Your task to perform on an android device: turn off picture-in-picture Image 0: 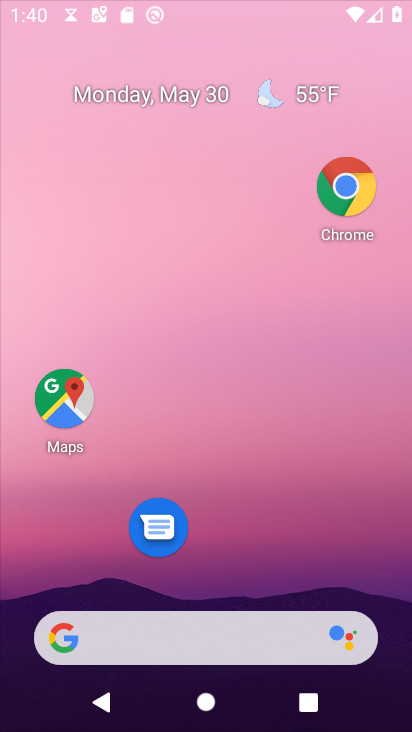
Step 0: drag from (199, 573) to (218, 75)
Your task to perform on an android device: turn off picture-in-picture Image 1: 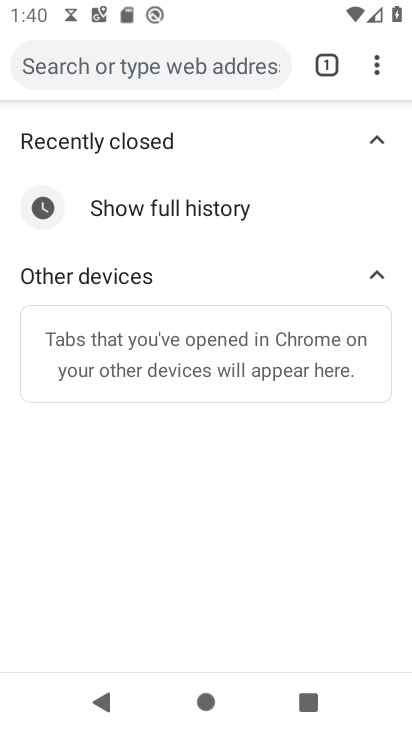
Step 1: press home button
Your task to perform on an android device: turn off picture-in-picture Image 2: 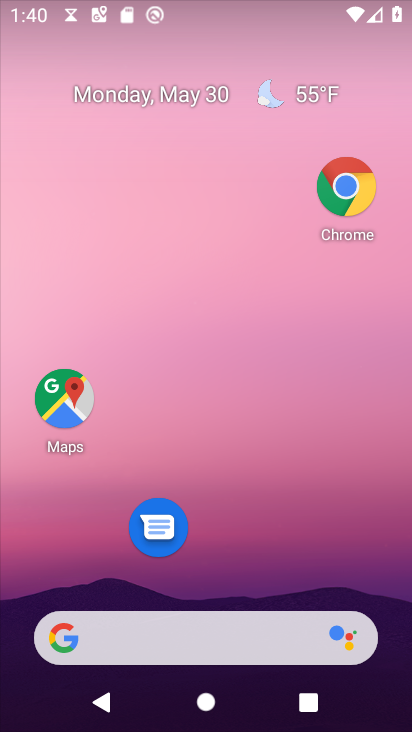
Step 2: drag from (235, 574) to (280, 23)
Your task to perform on an android device: turn off picture-in-picture Image 3: 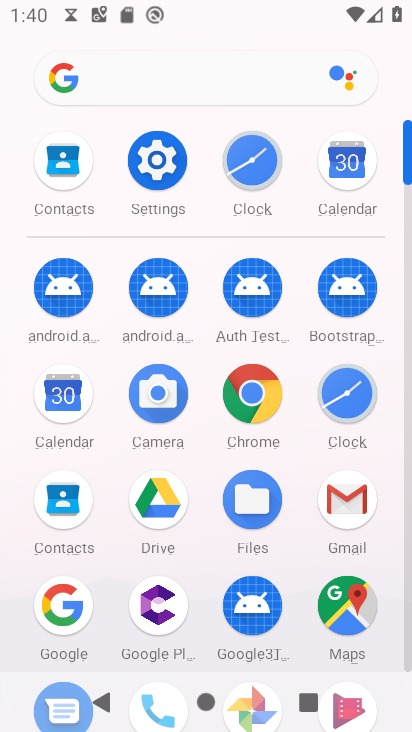
Step 3: click (138, 125)
Your task to perform on an android device: turn off picture-in-picture Image 4: 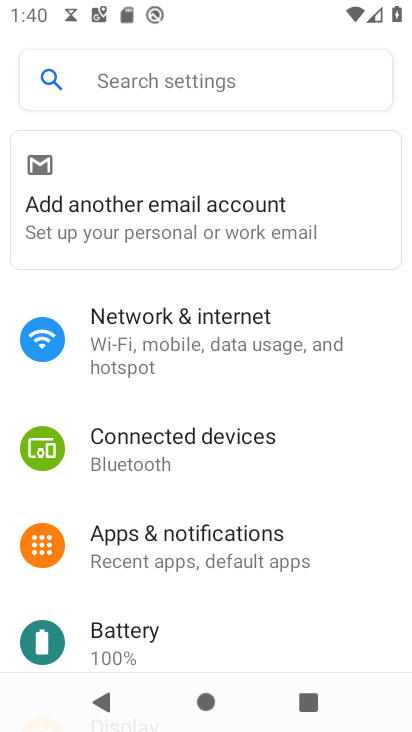
Step 4: click (172, 539)
Your task to perform on an android device: turn off picture-in-picture Image 5: 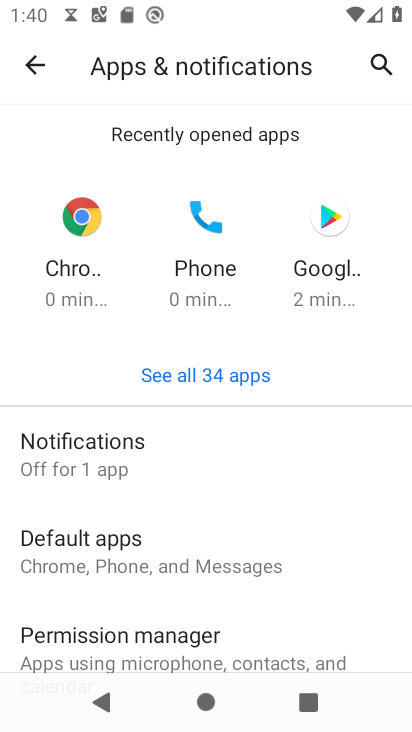
Step 5: click (166, 458)
Your task to perform on an android device: turn off picture-in-picture Image 6: 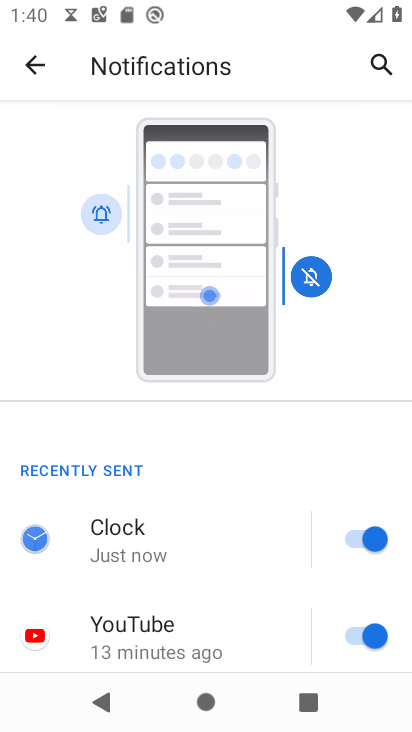
Step 6: drag from (199, 571) to (233, 292)
Your task to perform on an android device: turn off picture-in-picture Image 7: 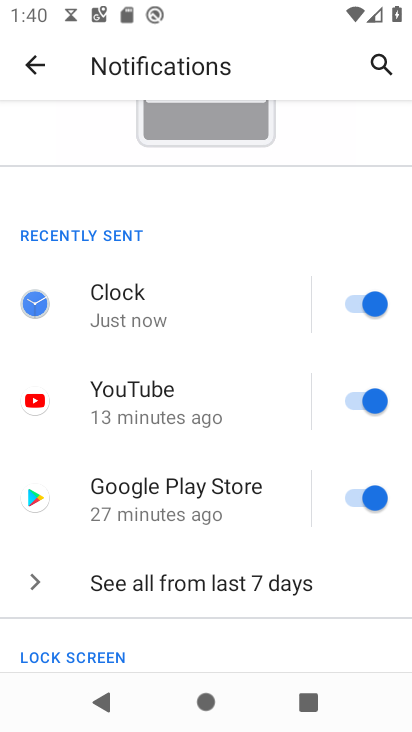
Step 7: drag from (210, 619) to (234, 369)
Your task to perform on an android device: turn off picture-in-picture Image 8: 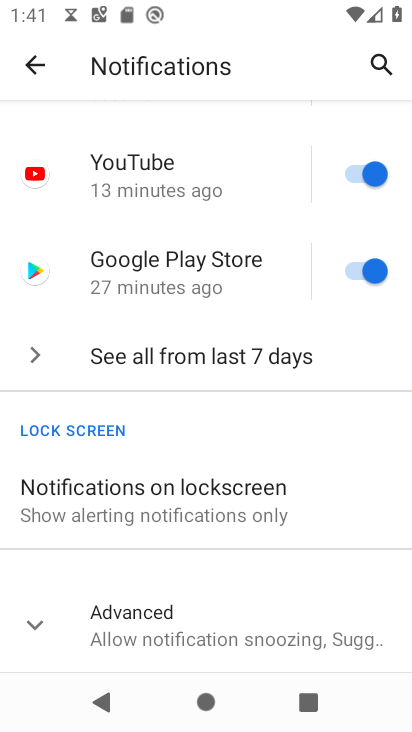
Step 8: click (45, 58)
Your task to perform on an android device: turn off picture-in-picture Image 9: 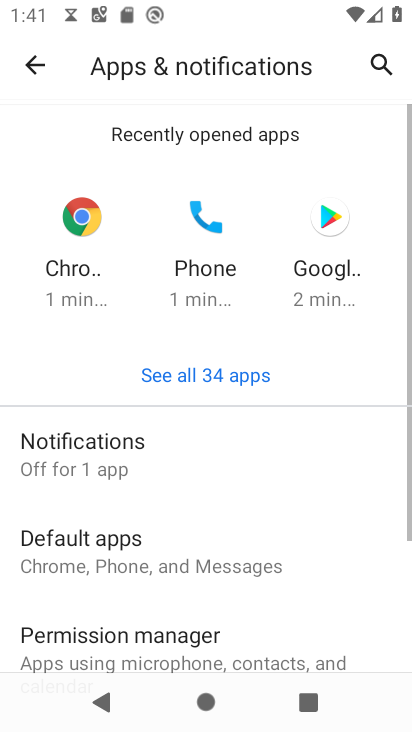
Step 9: drag from (175, 494) to (195, 183)
Your task to perform on an android device: turn off picture-in-picture Image 10: 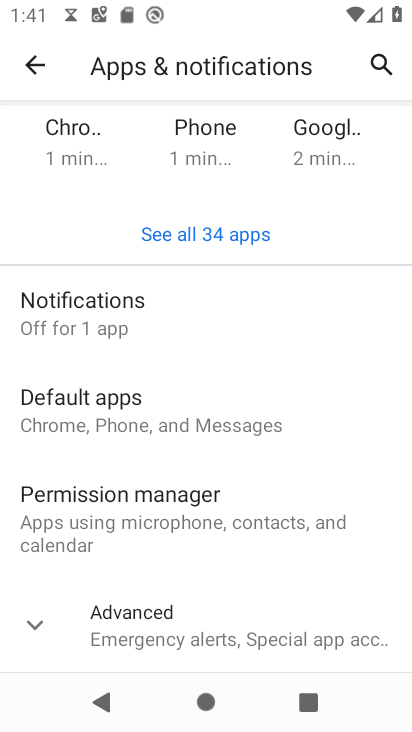
Step 10: click (149, 613)
Your task to perform on an android device: turn off picture-in-picture Image 11: 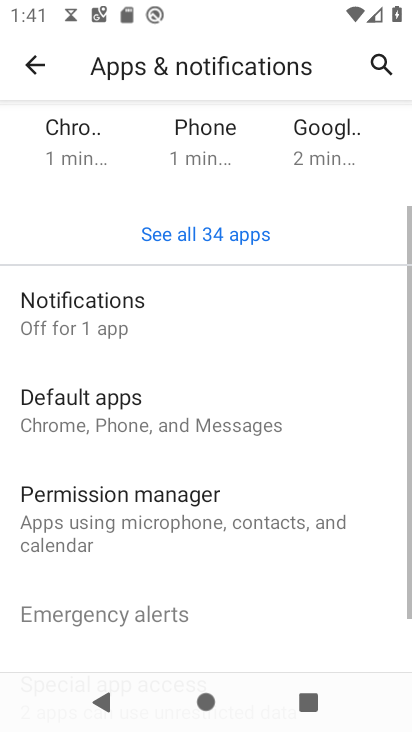
Step 11: drag from (158, 594) to (255, 62)
Your task to perform on an android device: turn off picture-in-picture Image 12: 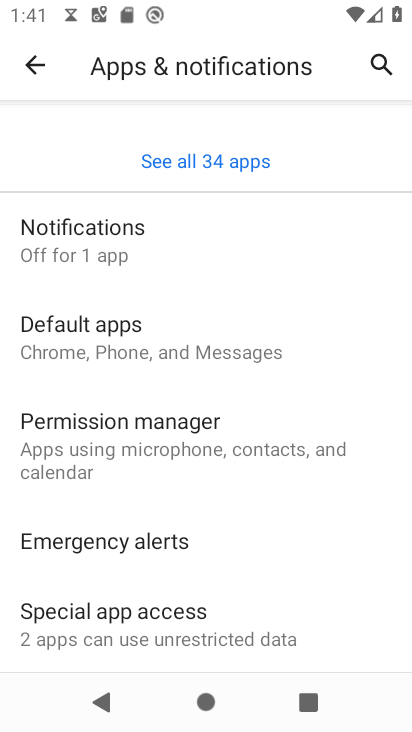
Step 12: click (130, 621)
Your task to perform on an android device: turn off picture-in-picture Image 13: 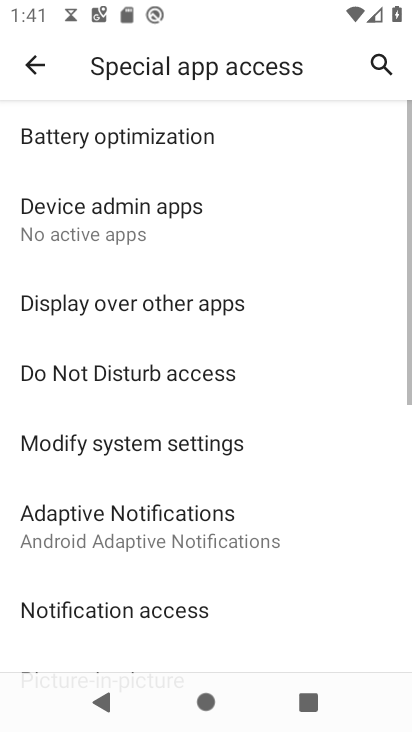
Step 13: drag from (244, 598) to (280, 134)
Your task to perform on an android device: turn off picture-in-picture Image 14: 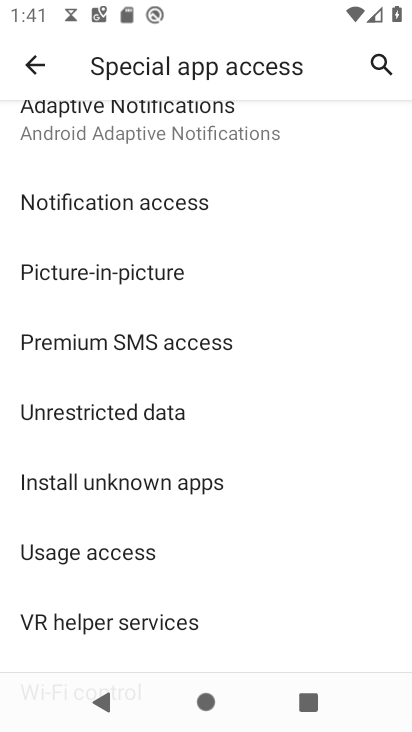
Step 14: click (145, 269)
Your task to perform on an android device: turn off picture-in-picture Image 15: 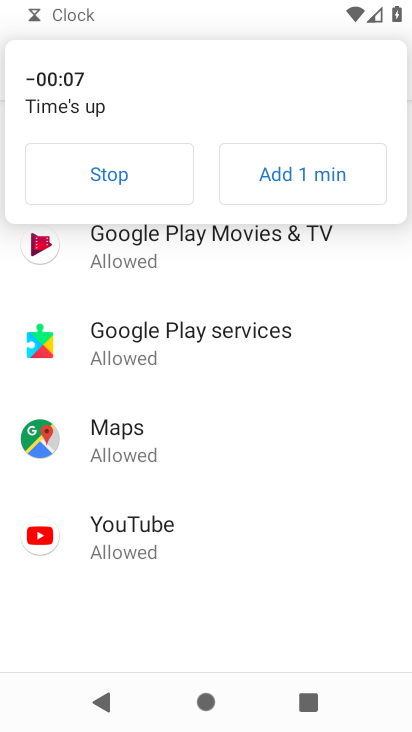
Step 15: click (129, 168)
Your task to perform on an android device: turn off picture-in-picture Image 16: 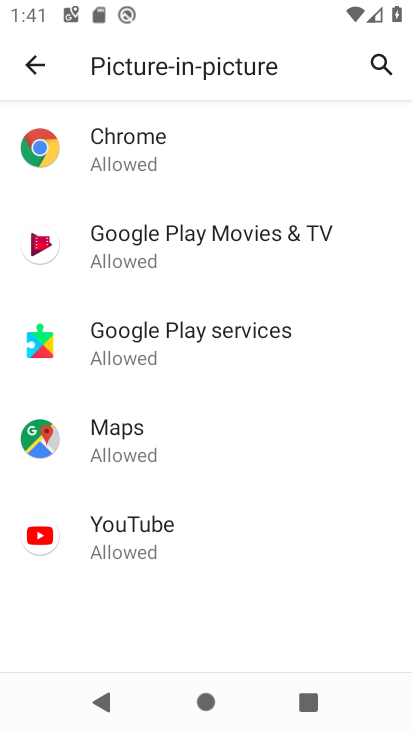
Step 16: click (118, 194)
Your task to perform on an android device: turn off picture-in-picture Image 17: 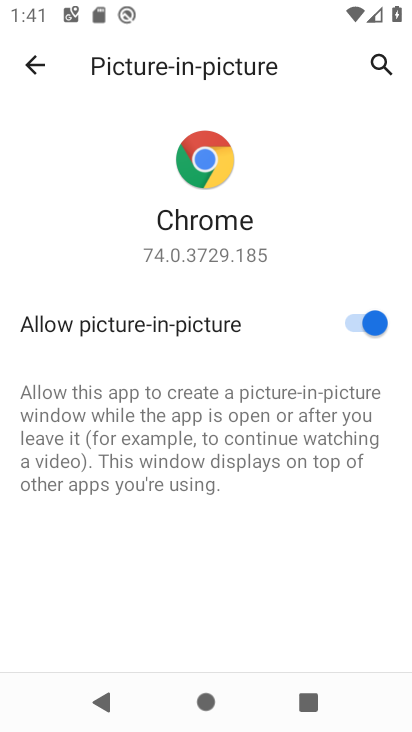
Step 17: click (391, 325)
Your task to perform on an android device: turn off picture-in-picture Image 18: 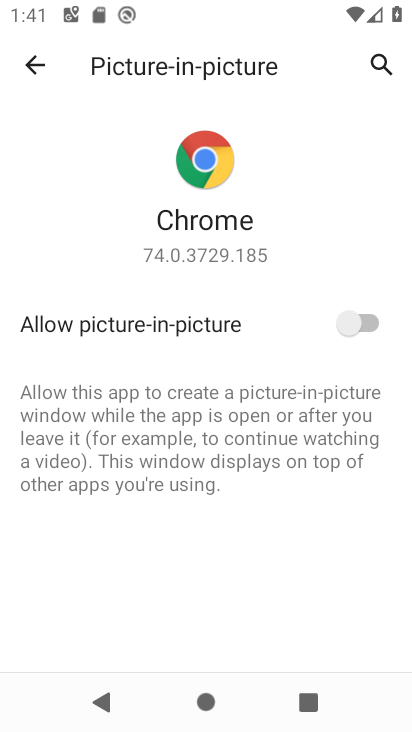
Step 18: task complete